Your task to perform on an android device: Toggle the flashlight Image 0: 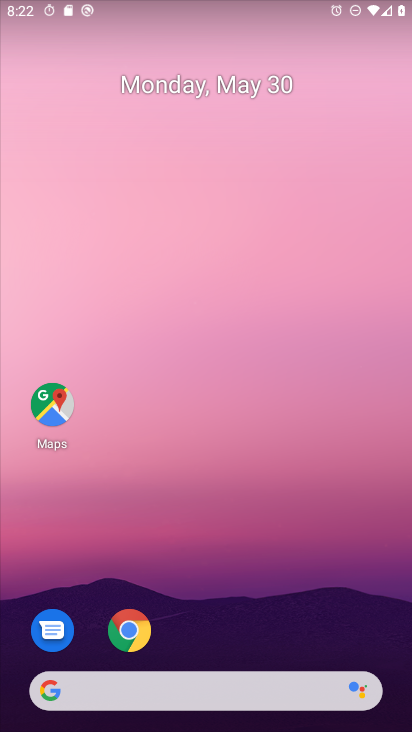
Step 0: drag from (357, 620) to (234, 143)
Your task to perform on an android device: Toggle the flashlight Image 1: 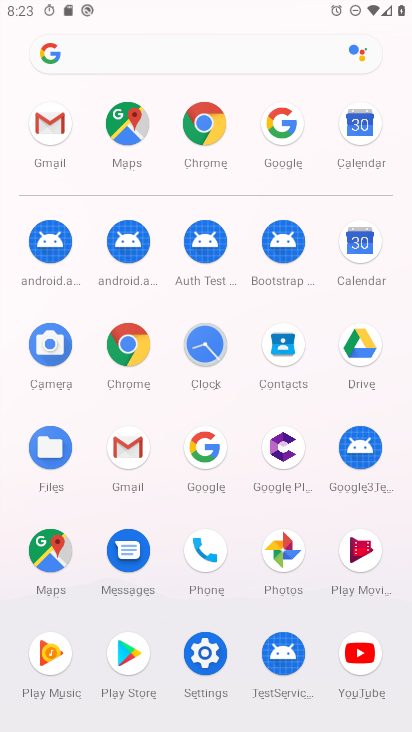
Step 1: click (198, 674)
Your task to perform on an android device: Toggle the flashlight Image 2: 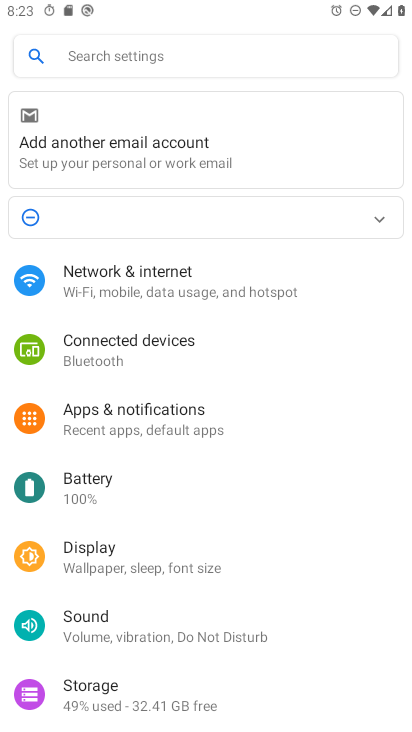
Step 2: task complete